Your task to perform on an android device: toggle sleep mode Image 0: 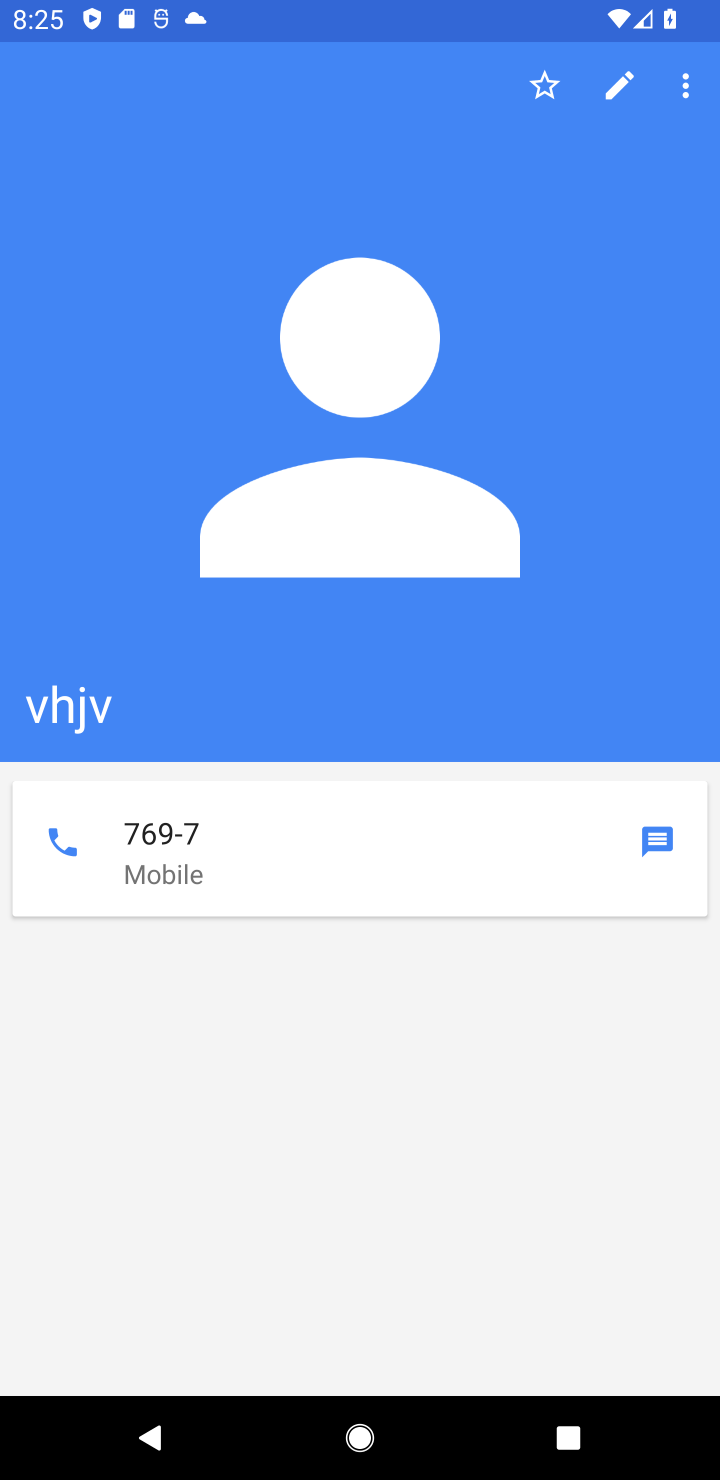
Step 0: press home button
Your task to perform on an android device: toggle sleep mode Image 1: 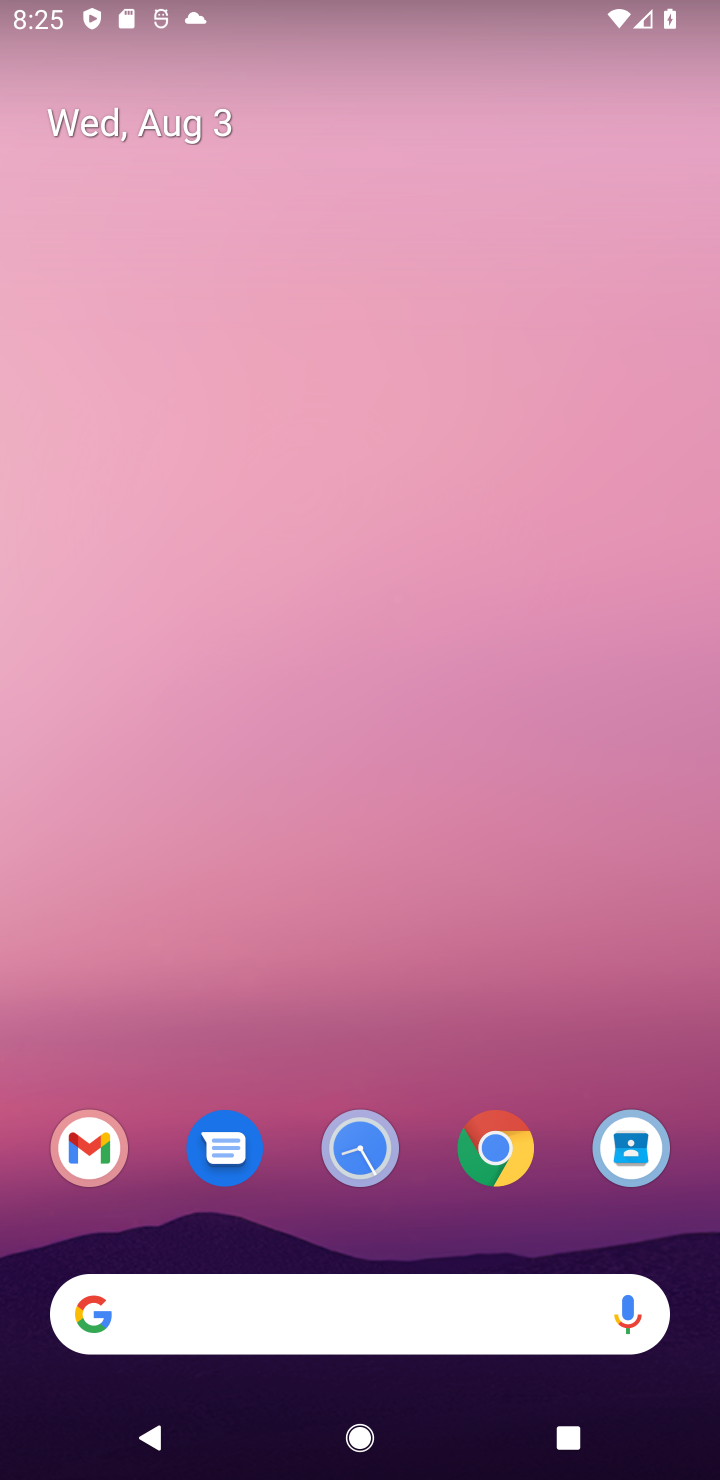
Step 1: drag from (565, 1096) to (512, 71)
Your task to perform on an android device: toggle sleep mode Image 2: 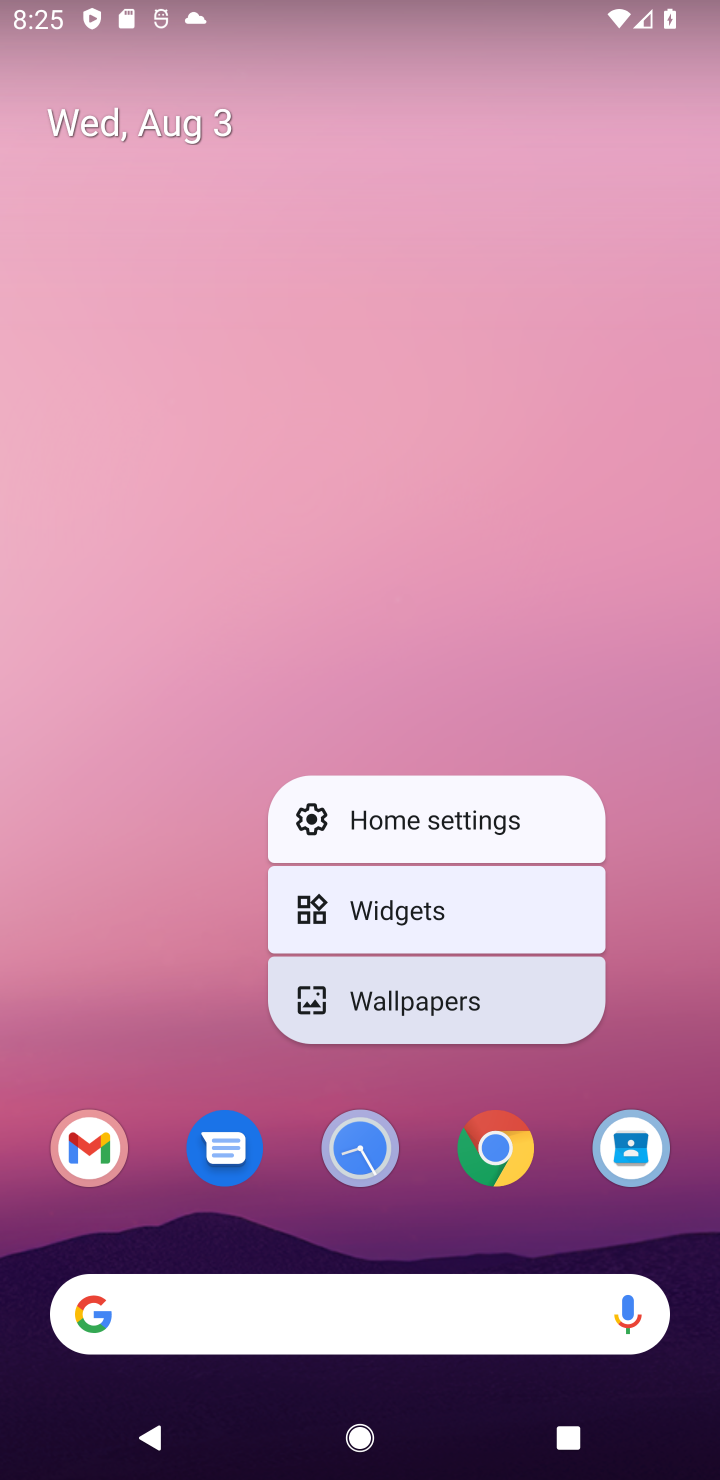
Step 2: drag from (693, 1312) to (378, 53)
Your task to perform on an android device: toggle sleep mode Image 3: 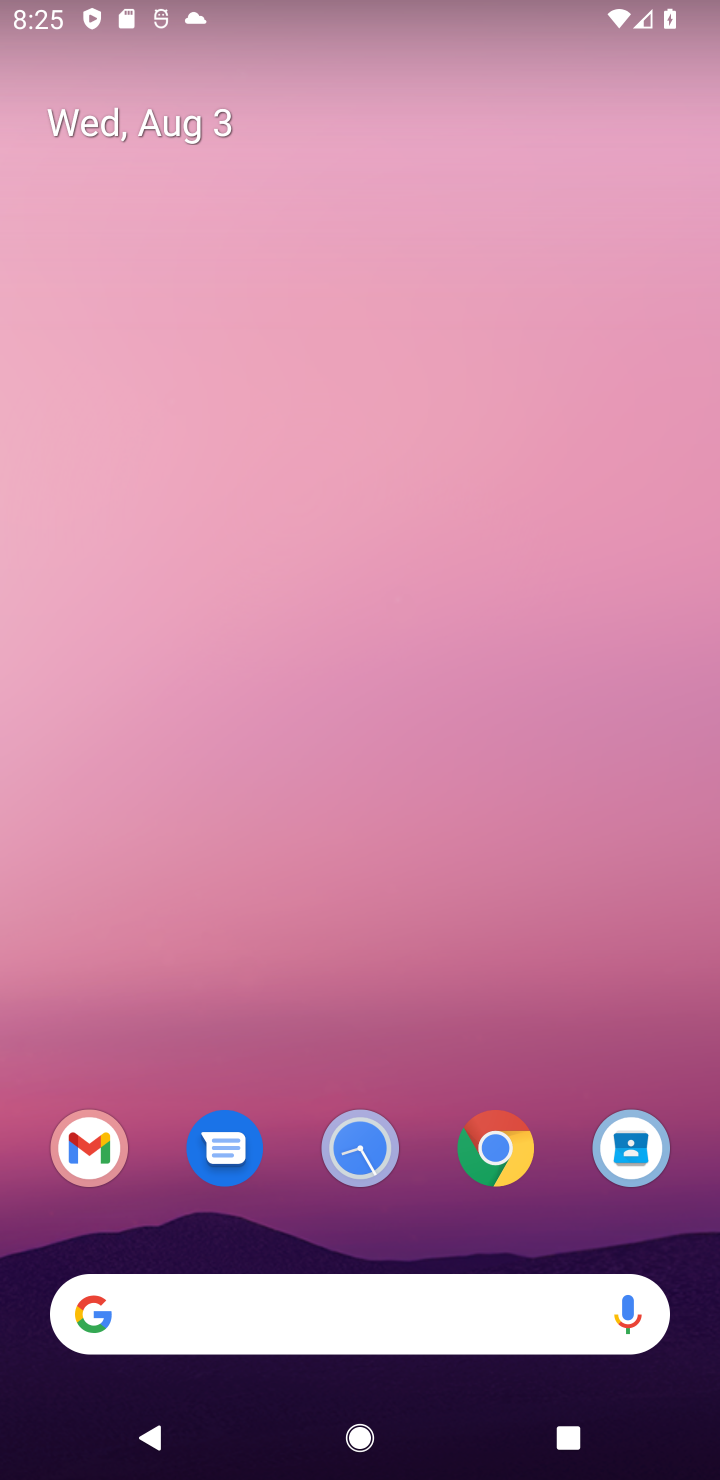
Step 3: drag from (434, 1265) to (374, 175)
Your task to perform on an android device: toggle sleep mode Image 4: 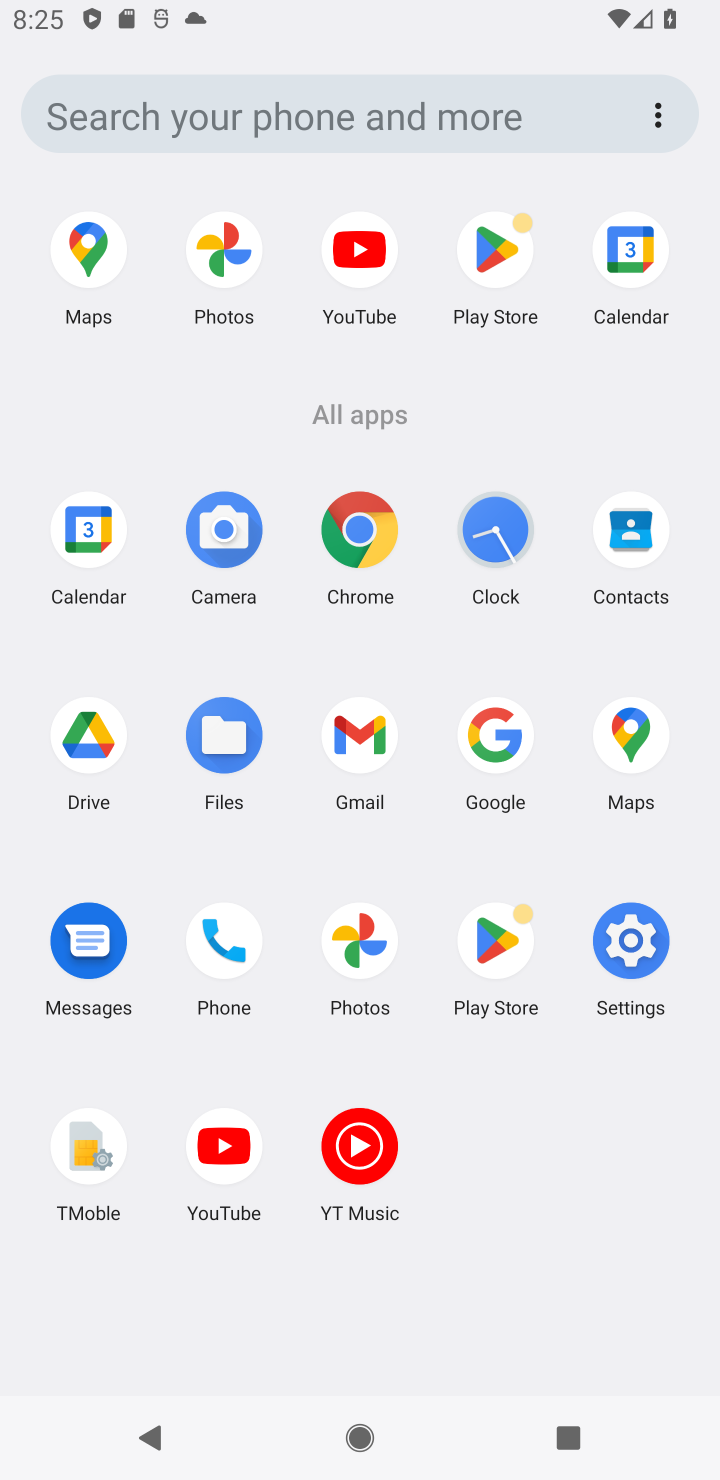
Step 4: click (634, 1005)
Your task to perform on an android device: toggle sleep mode Image 5: 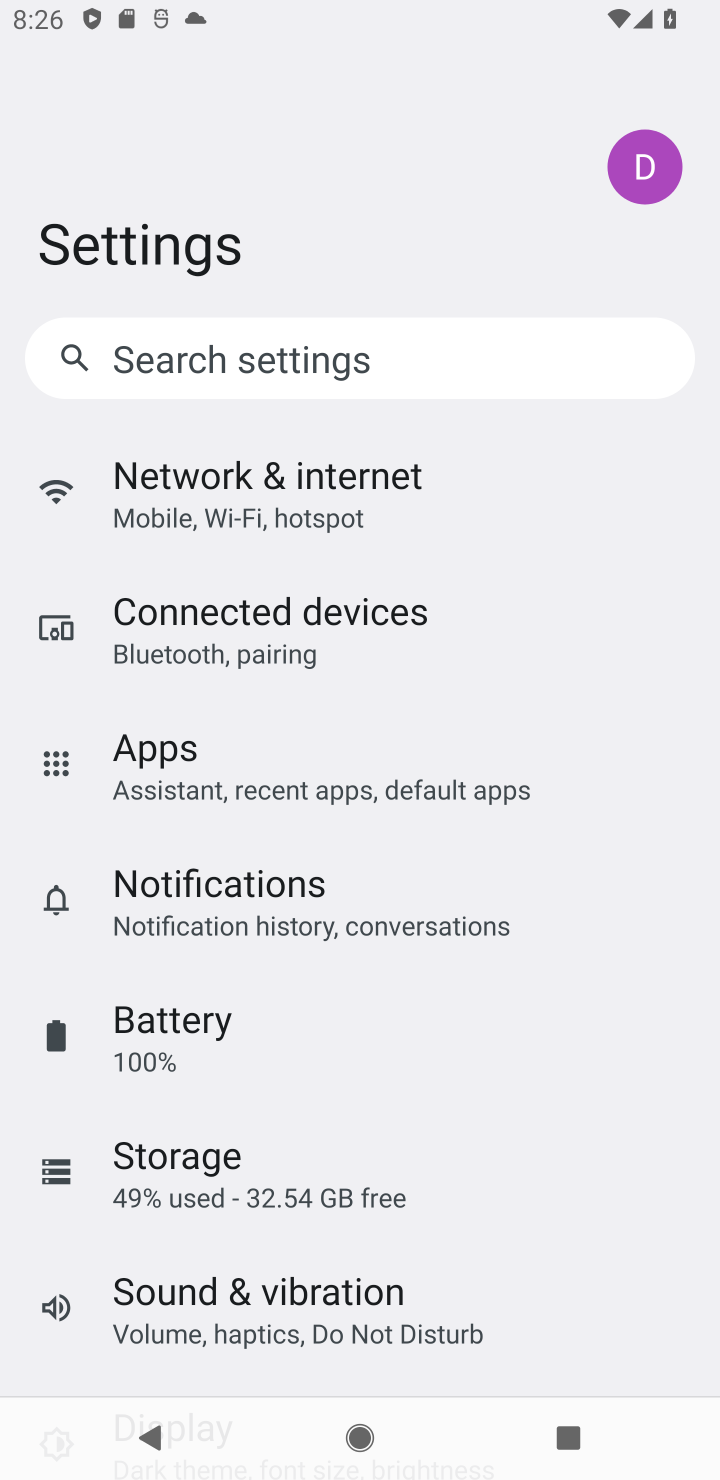
Step 5: drag from (531, 1246) to (502, 619)
Your task to perform on an android device: toggle sleep mode Image 6: 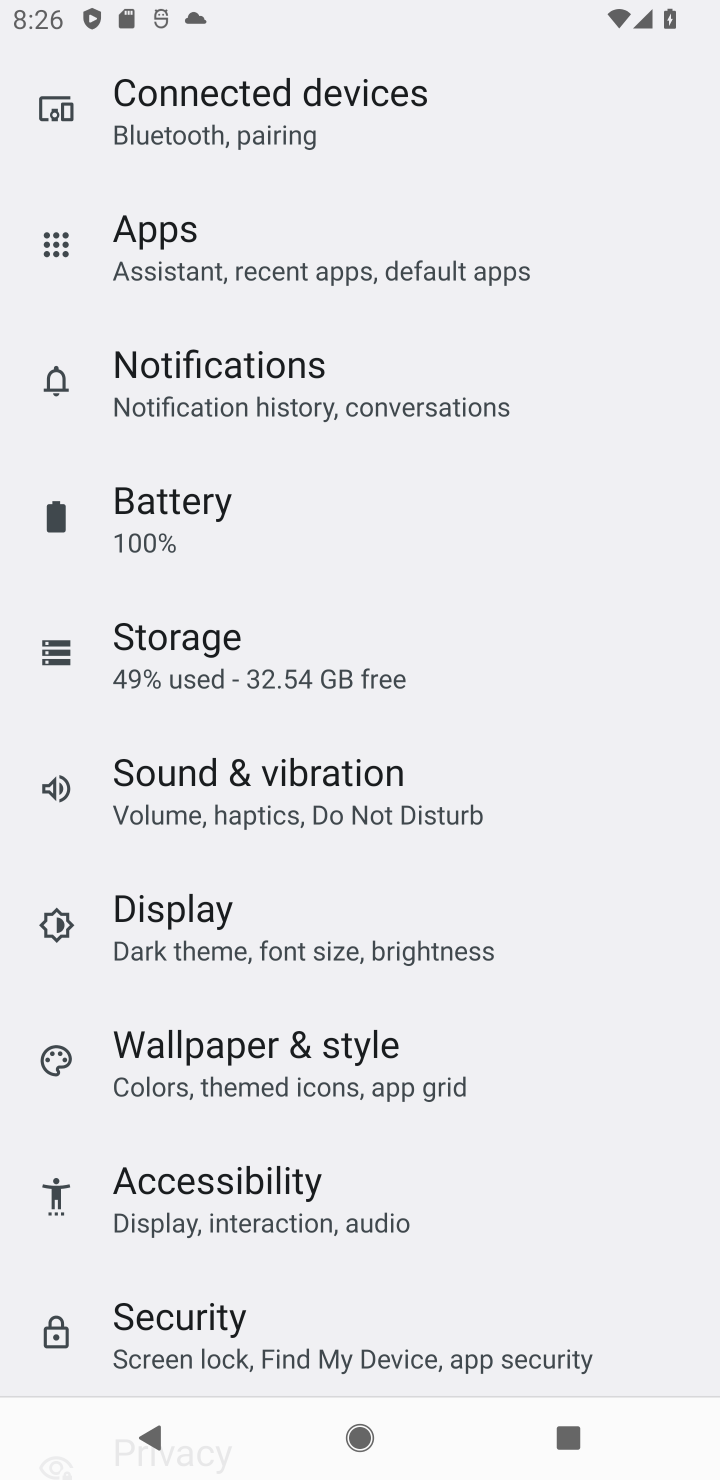
Step 6: drag from (368, 1017) to (350, 933)
Your task to perform on an android device: toggle sleep mode Image 7: 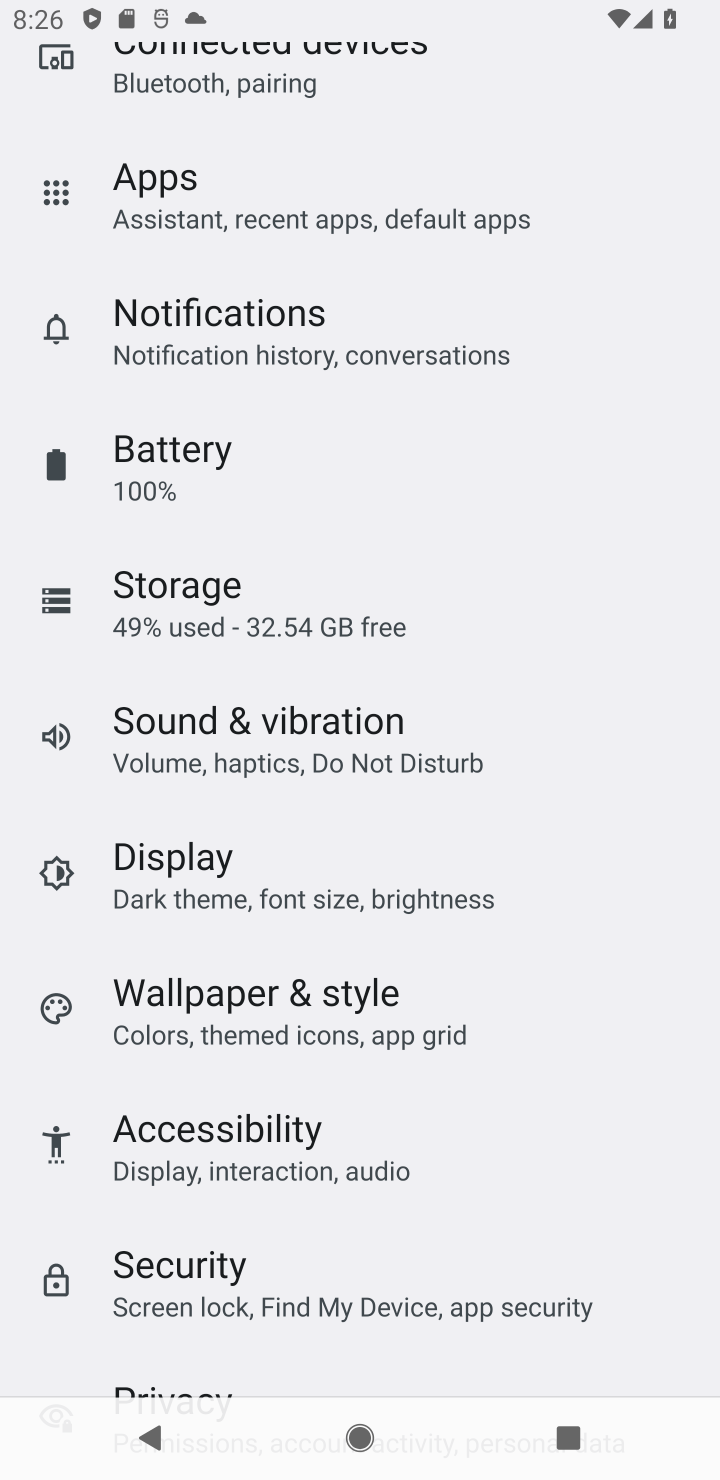
Step 7: click (350, 901)
Your task to perform on an android device: toggle sleep mode Image 8: 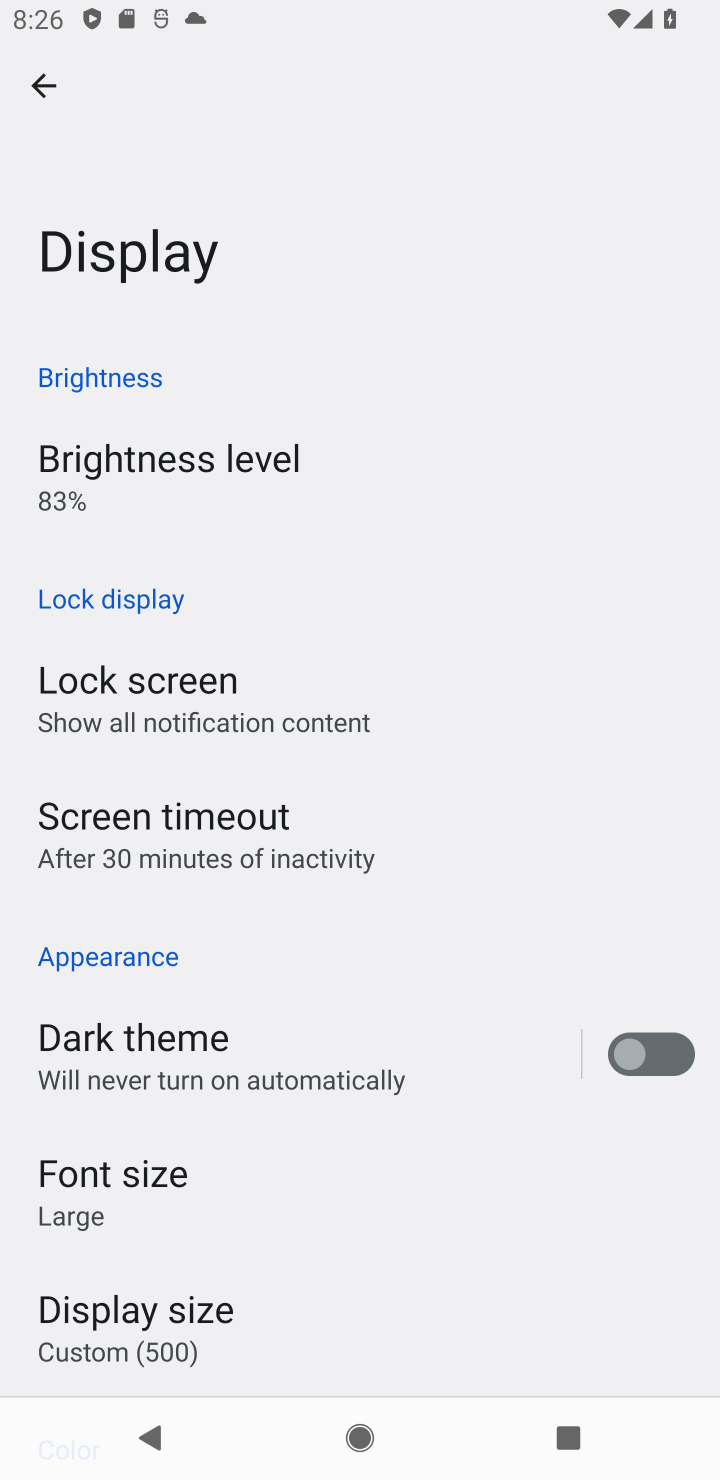
Step 8: task complete